Your task to perform on an android device: toggle wifi Image 0: 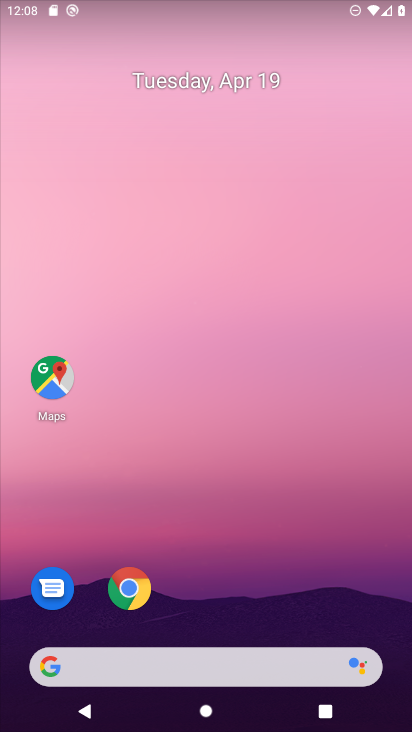
Step 0: drag from (322, 486) to (208, 5)
Your task to perform on an android device: toggle wifi Image 1: 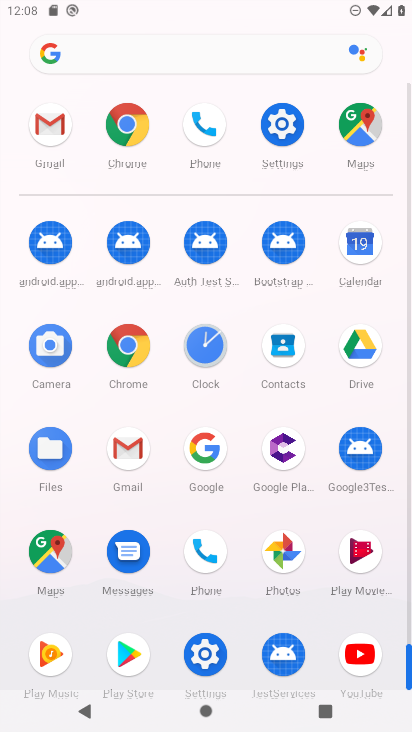
Step 1: drag from (5, 415) to (6, 129)
Your task to perform on an android device: toggle wifi Image 2: 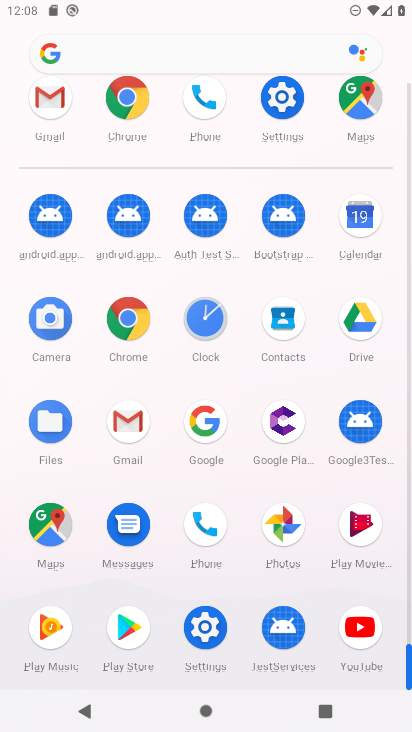
Step 2: click (207, 623)
Your task to perform on an android device: toggle wifi Image 3: 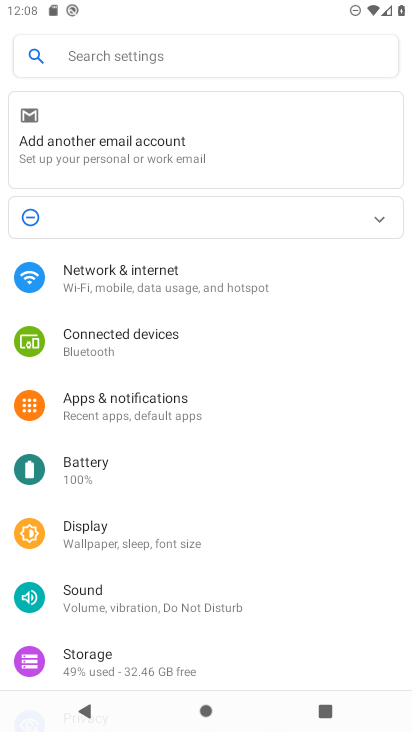
Step 3: click (197, 278)
Your task to perform on an android device: toggle wifi Image 4: 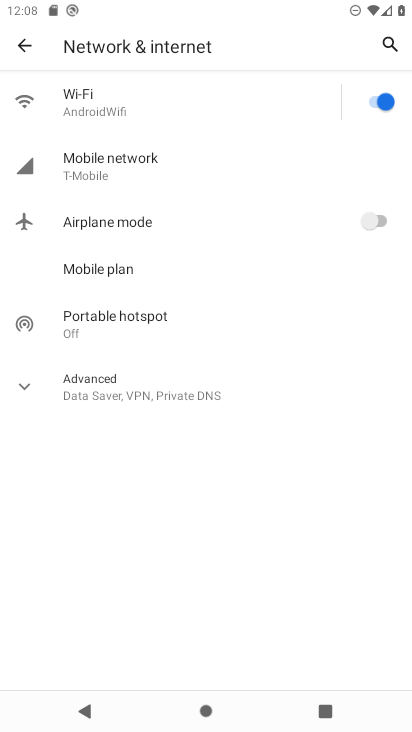
Step 4: click (373, 100)
Your task to perform on an android device: toggle wifi Image 5: 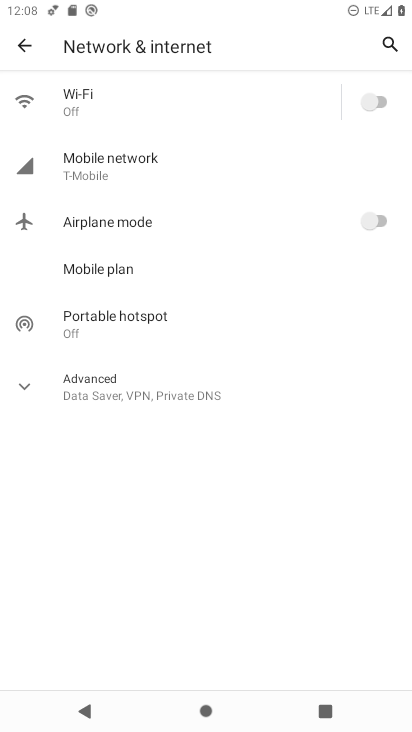
Step 5: task complete